Your task to perform on an android device: check google app version Image 0: 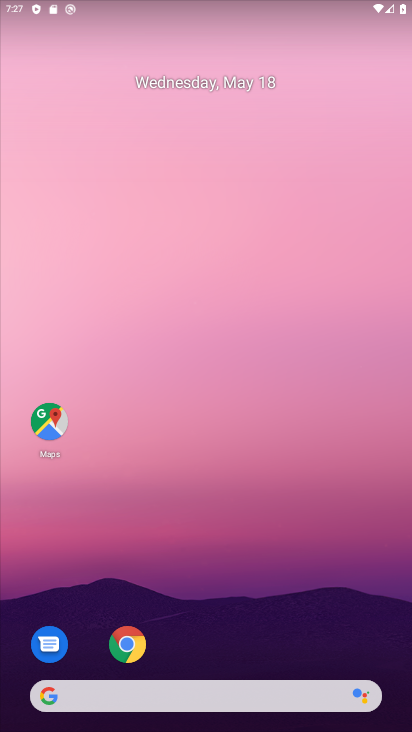
Step 0: drag from (257, 712) to (244, 356)
Your task to perform on an android device: check google app version Image 1: 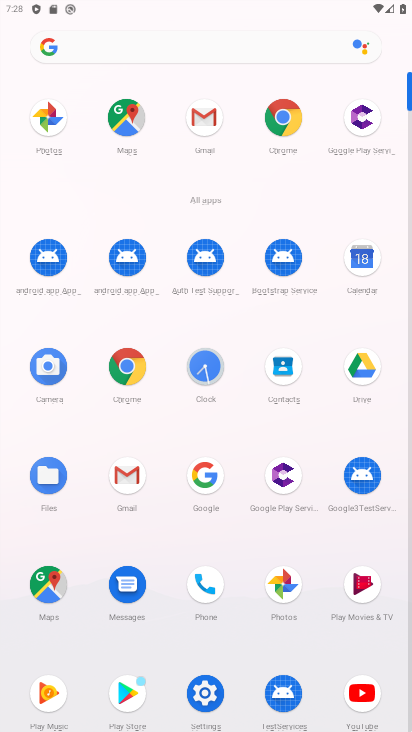
Step 1: click (300, 119)
Your task to perform on an android device: check google app version Image 2: 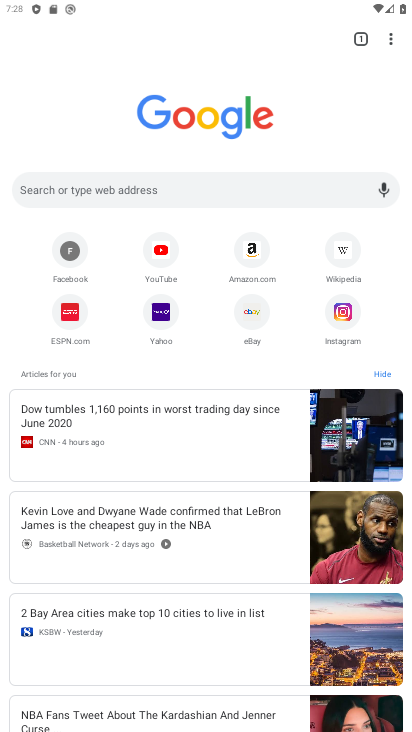
Step 2: click (383, 50)
Your task to perform on an android device: check google app version Image 3: 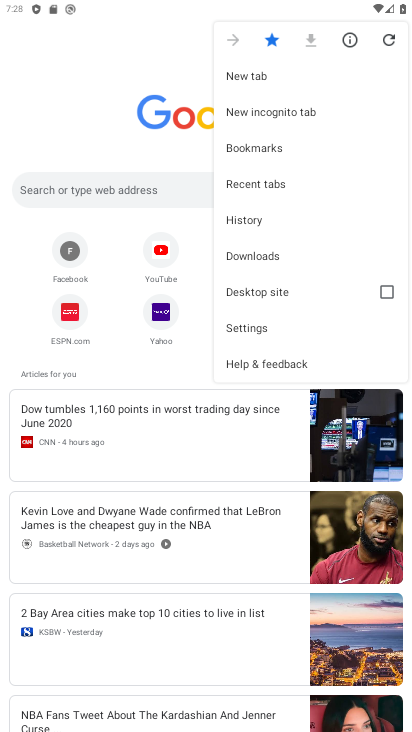
Step 3: click (268, 328)
Your task to perform on an android device: check google app version Image 4: 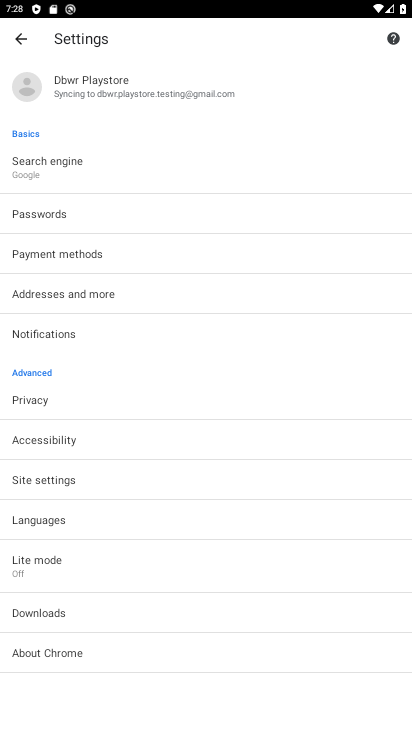
Step 4: click (42, 643)
Your task to perform on an android device: check google app version Image 5: 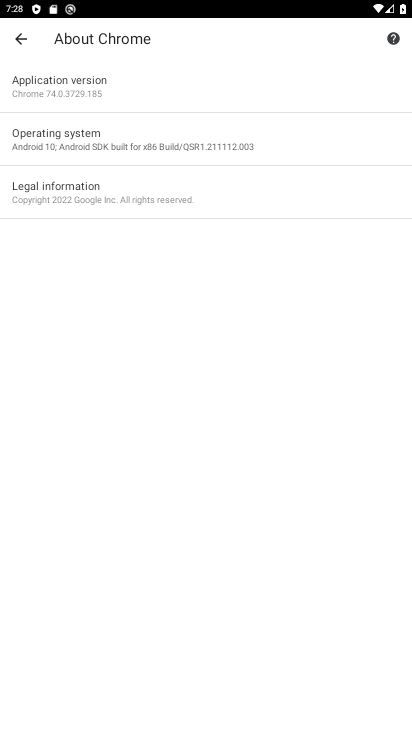
Step 5: click (50, 80)
Your task to perform on an android device: check google app version Image 6: 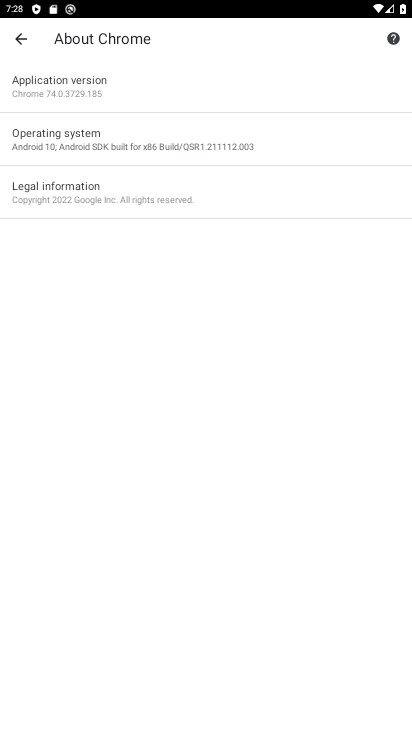
Step 6: task complete